Your task to perform on an android device: toggle priority inbox in the gmail app Image 0: 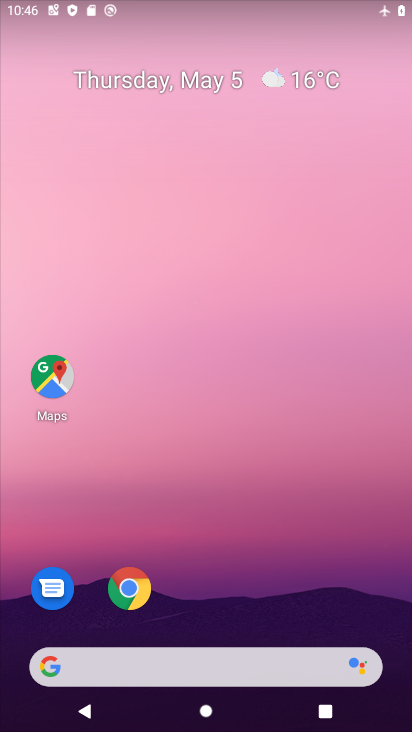
Step 0: drag from (260, 575) to (193, 54)
Your task to perform on an android device: toggle priority inbox in the gmail app Image 1: 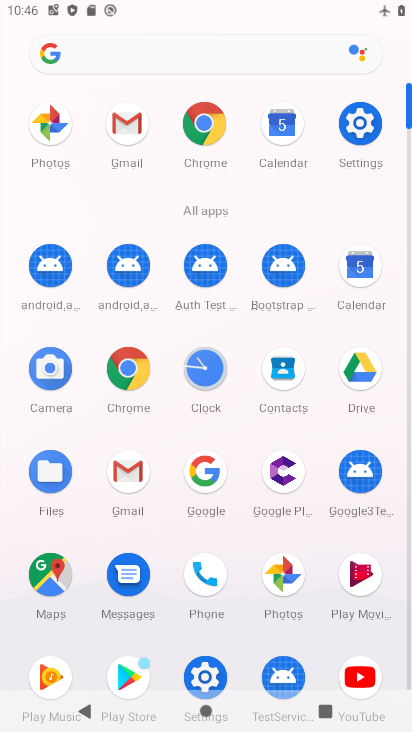
Step 1: click (140, 128)
Your task to perform on an android device: toggle priority inbox in the gmail app Image 2: 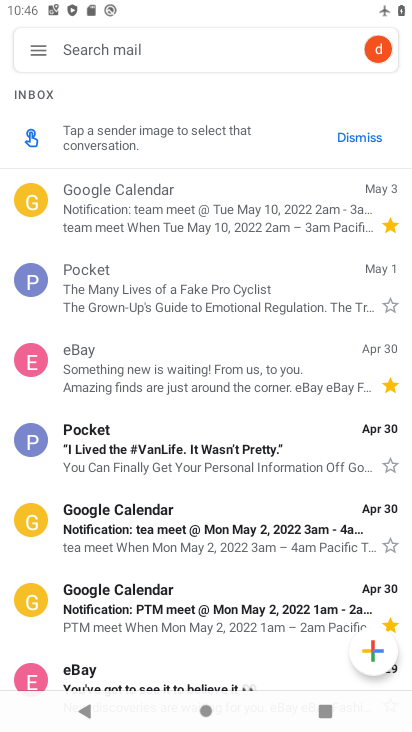
Step 2: click (42, 48)
Your task to perform on an android device: toggle priority inbox in the gmail app Image 3: 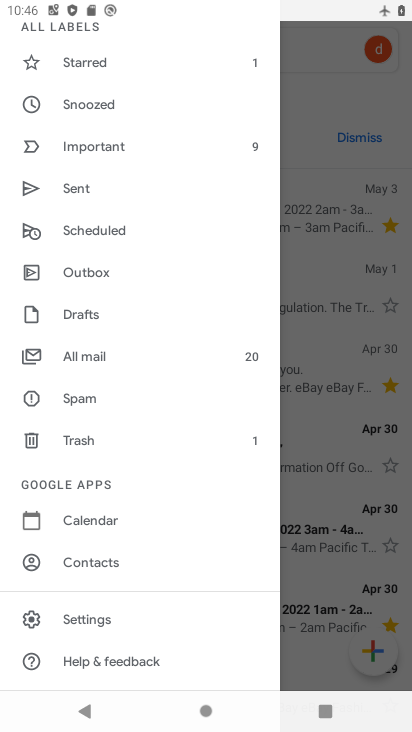
Step 3: click (142, 616)
Your task to perform on an android device: toggle priority inbox in the gmail app Image 4: 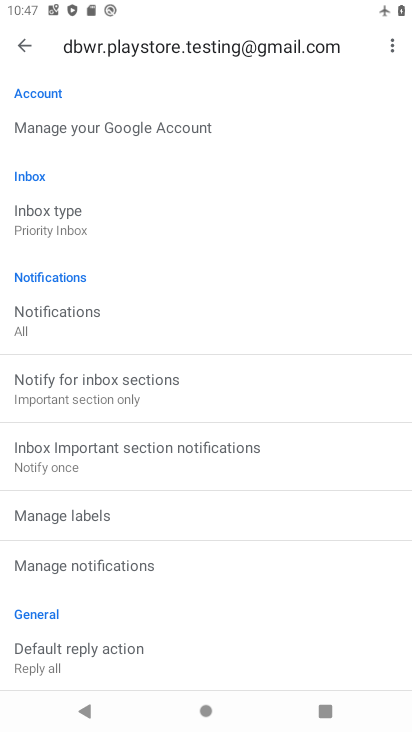
Step 4: click (165, 226)
Your task to perform on an android device: toggle priority inbox in the gmail app Image 5: 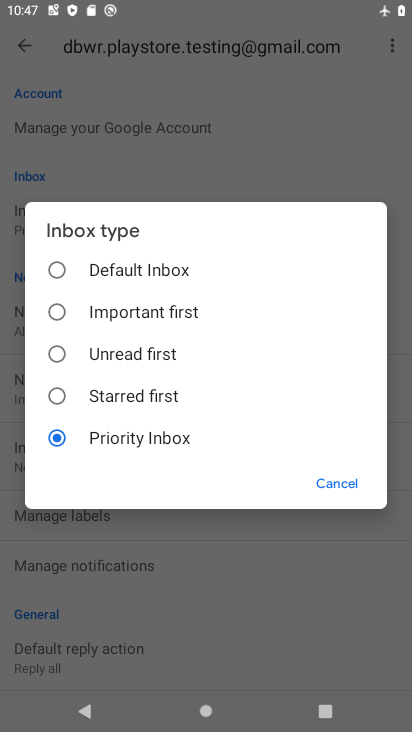
Step 5: click (160, 397)
Your task to perform on an android device: toggle priority inbox in the gmail app Image 6: 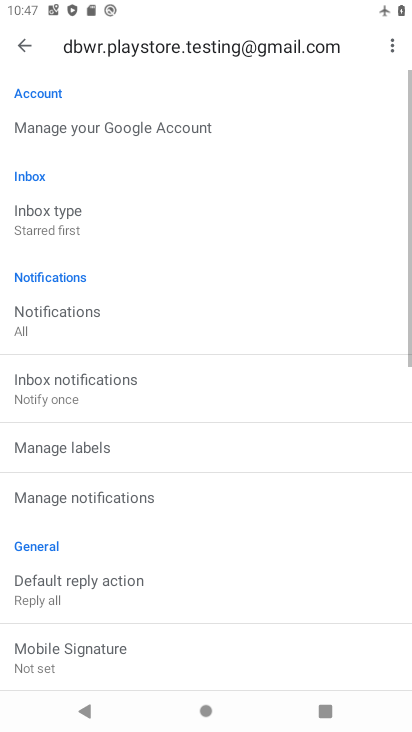
Step 6: task complete